Your task to perform on an android device: Open network settings Image 0: 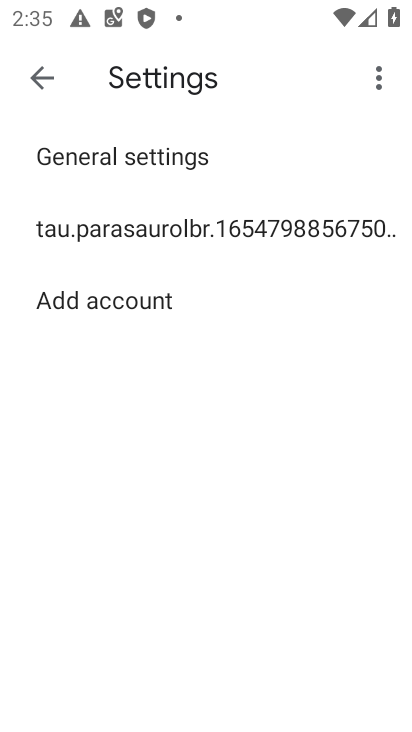
Step 0: press home button
Your task to perform on an android device: Open network settings Image 1: 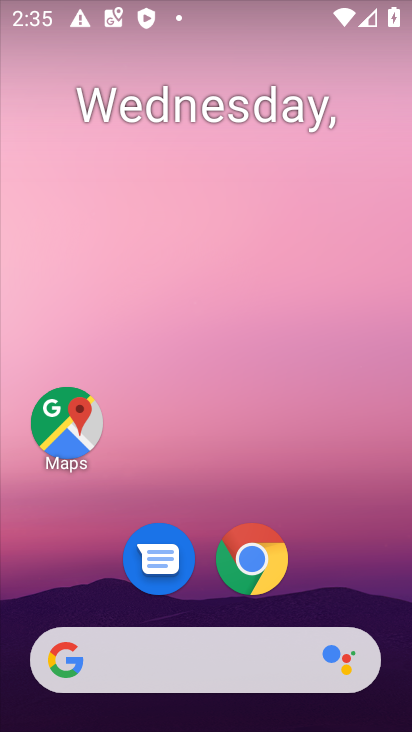
Step 1: drag from (197, 611) to (191, 33)
Your task to perform on an android device: Open network settings Image 2: 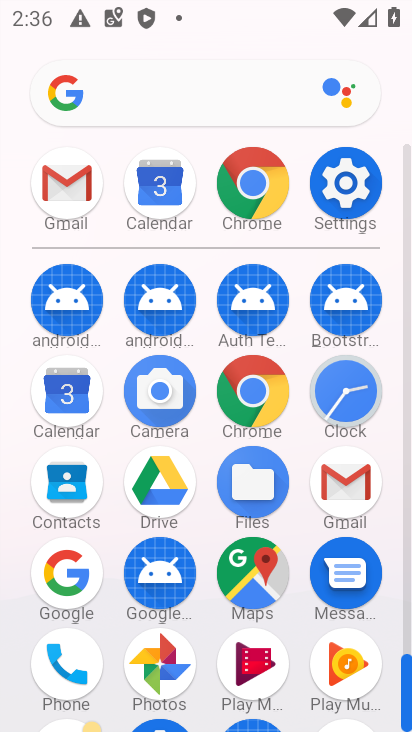
Step 2: click (354, 184)
Your task to perform on an android device: Open network settings Image 3: 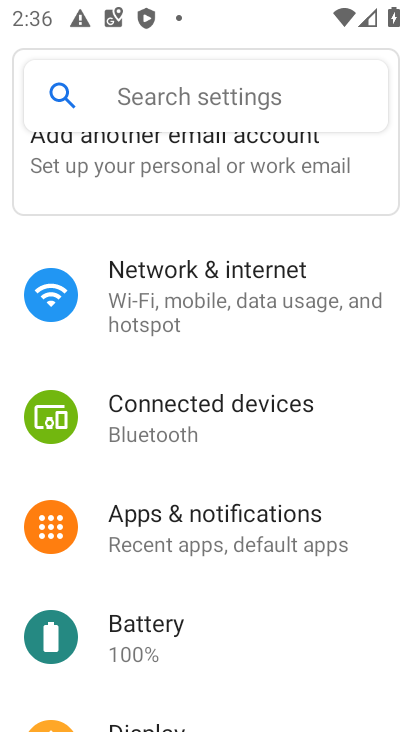
Step 3: click (163, 306)
Your task to perform on an android device: Open network settings Image 4: 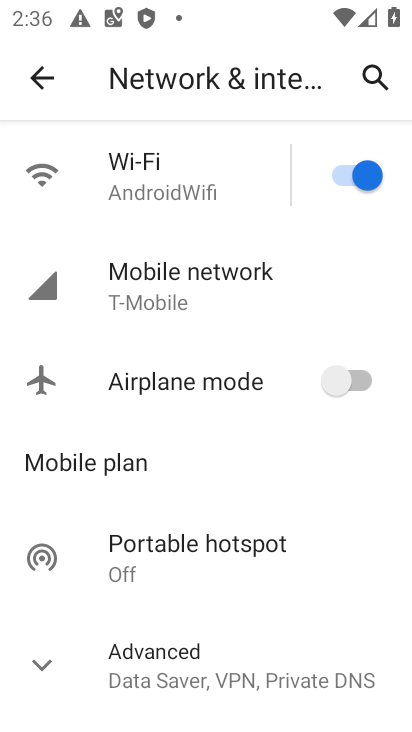
Step 4: click (171, 264)
Your task to perform on an android device: Open network settings Image 5: 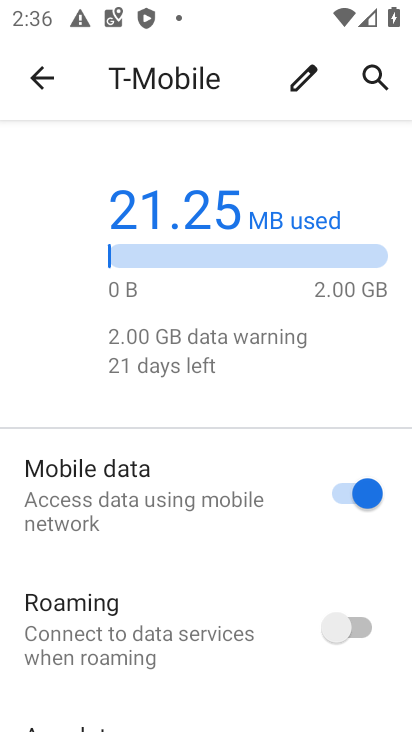
Step 5: task complete